Your task to perform on an android device: turn on javascript in the chrome app Image 0: 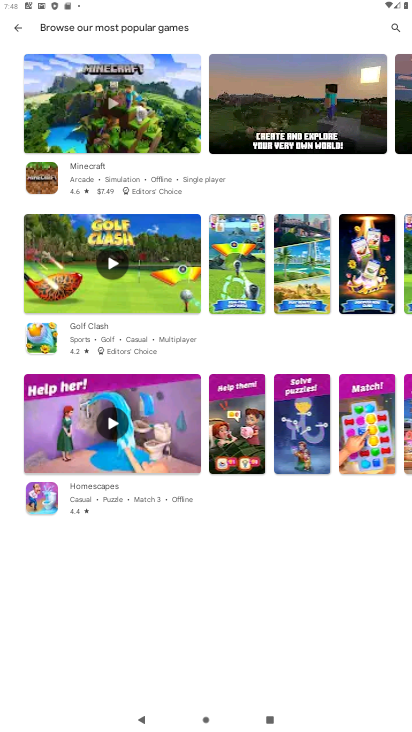
Step 0: press home button
Your task to perform on an android device: turn on javascript in the chrome app Image 1: 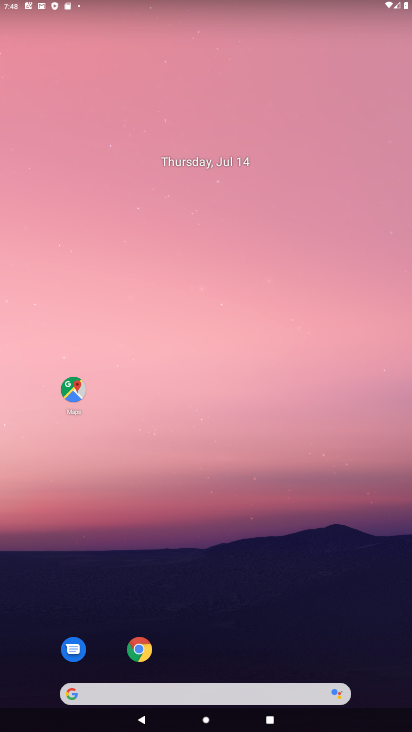
Step 1: click (135, 649)
Your task to perform on an android device: turn on javascript in the chrome app Image 2: 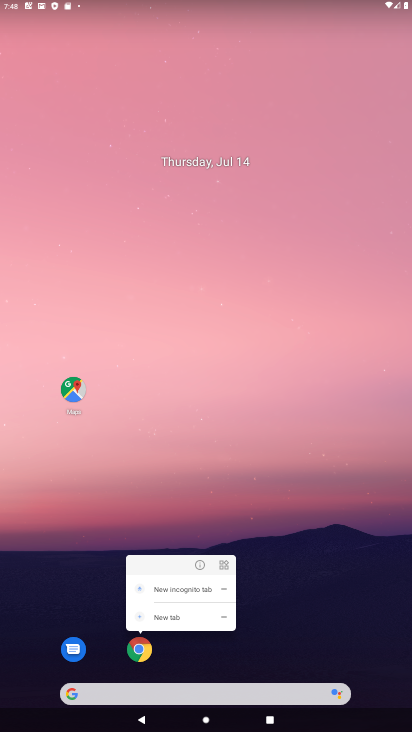
Step 2: click (135, 649)
Your task to perform on an android device: turn on javascript in the chrome app Image 3: 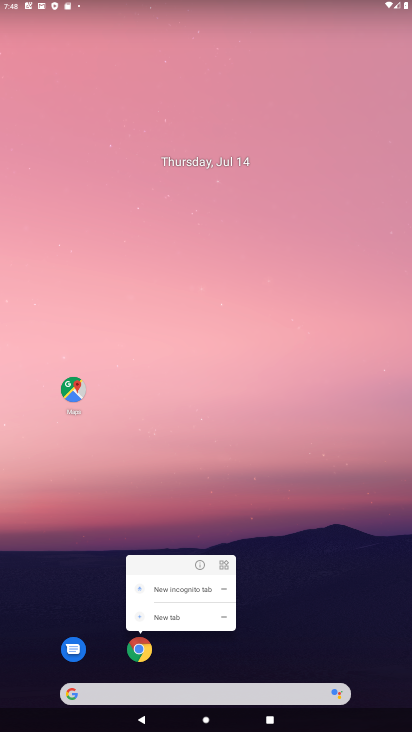
Step 3: click (142, 646)
Your task to perform on an android device: turn on javascript in the chrome app Image 4: 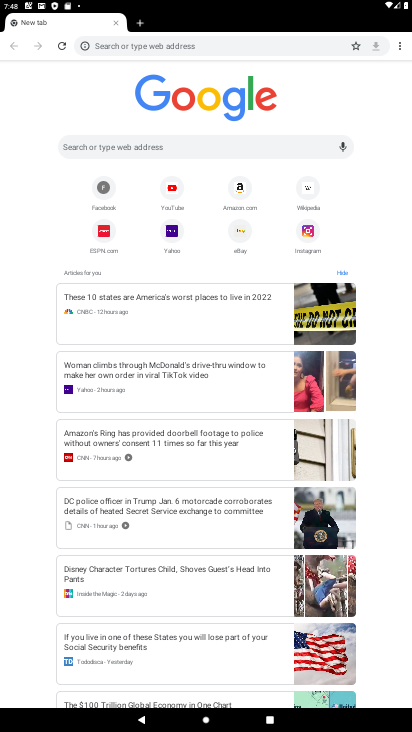
Step 4: click (397, 43)
Your task to perform on an android device: turn on javascript in the chrome app Image 5: 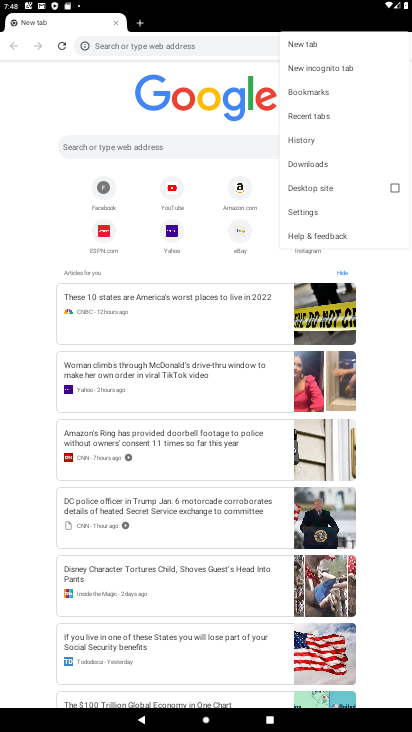
Step 5: click (318, 215)
Your task to perform on an android device: turn on javascript in the chrome app Image 6: 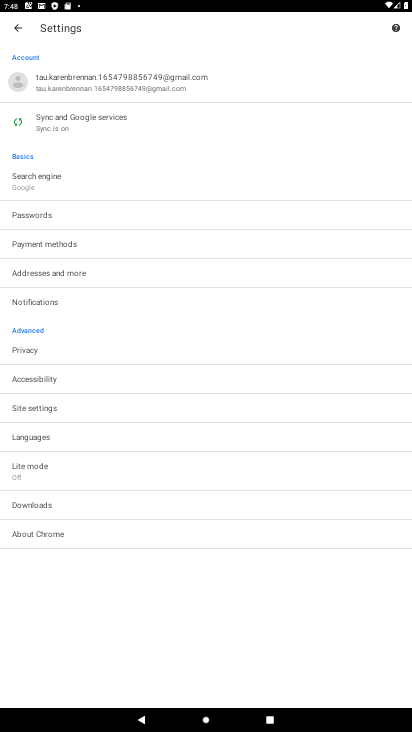
Step 6: click (62, 408)
Your task to perform on an android device: turn on javascript in the chrome app Image 7: 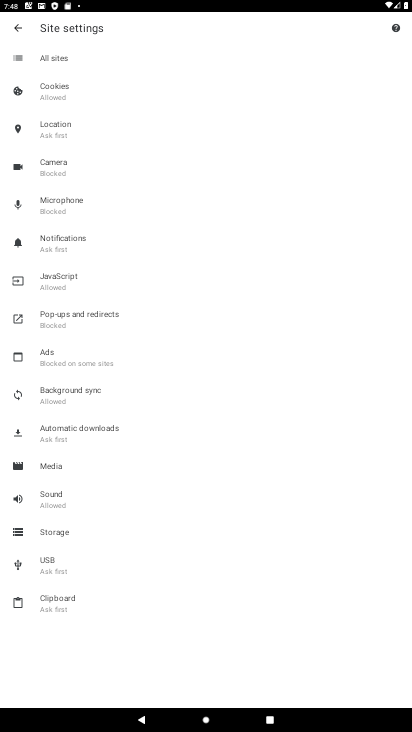
Step 7: click (92, 279)
Your task to perform on an android device: turn on javascript in the chrome app Image 8: 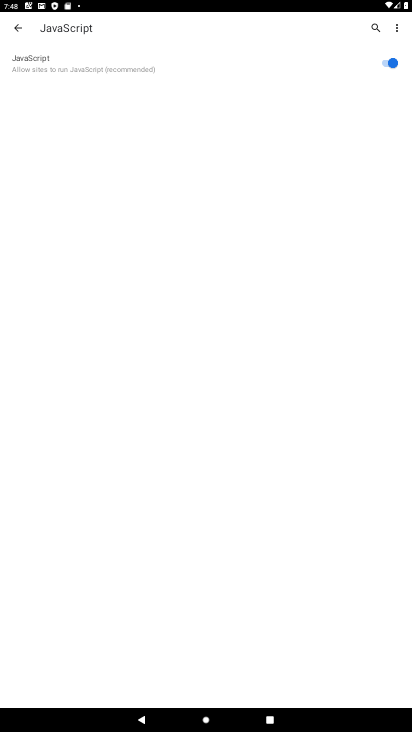
Step 8: task complete